Your task to perform on an android device: Go to Wikipedia Image 0: 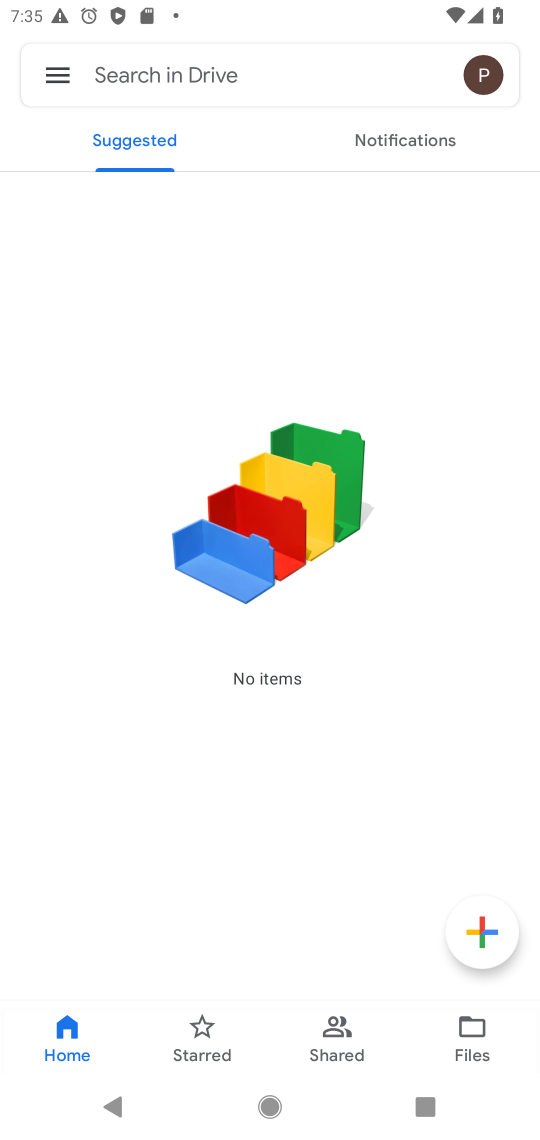
Step 0: press home button
Your task to perform on an android device: Go to Wikipedia Image 1: 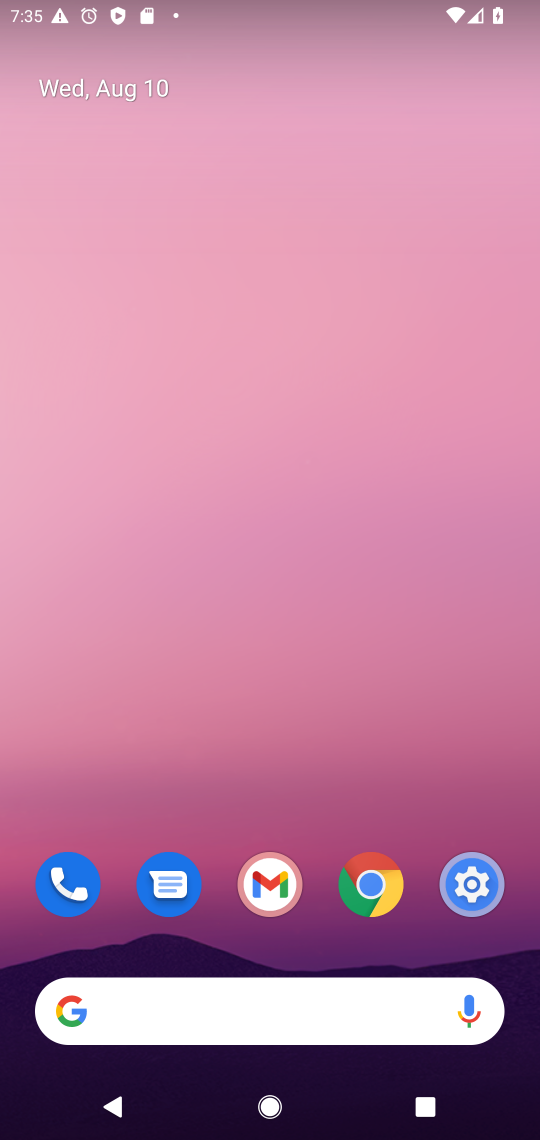
Step 1: click (117, 995)
Your task to perform on an android device: Go to Wikipedia Image 2: 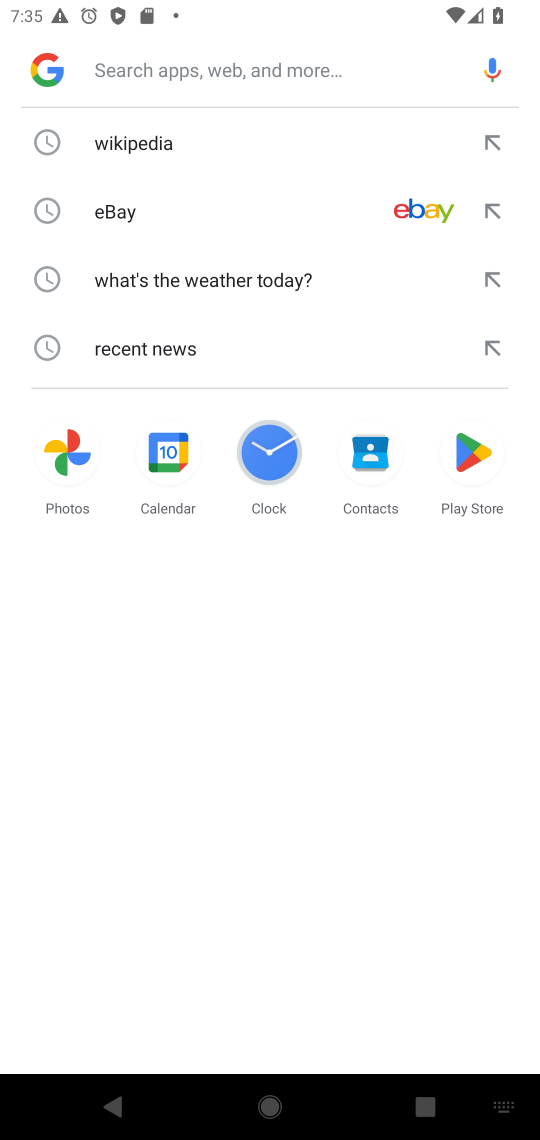
Step 2: type "Wikipedia"
Your task to perform on an android device: Go to Wikipedia Image 3: 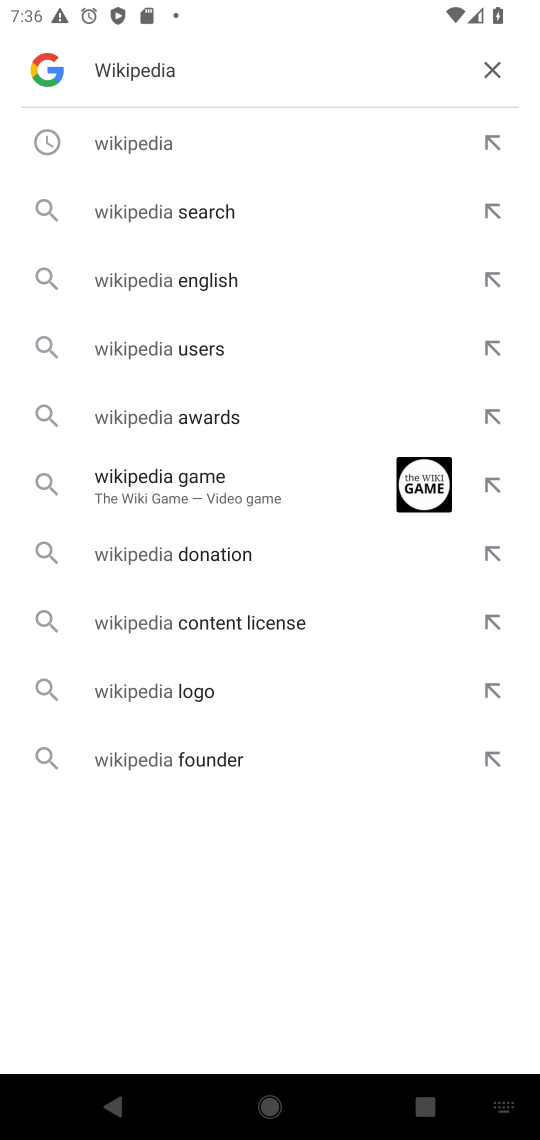
Step 3: click (205, 131)
Your task to perform on an android device: Go to Wikipedia Image 4: 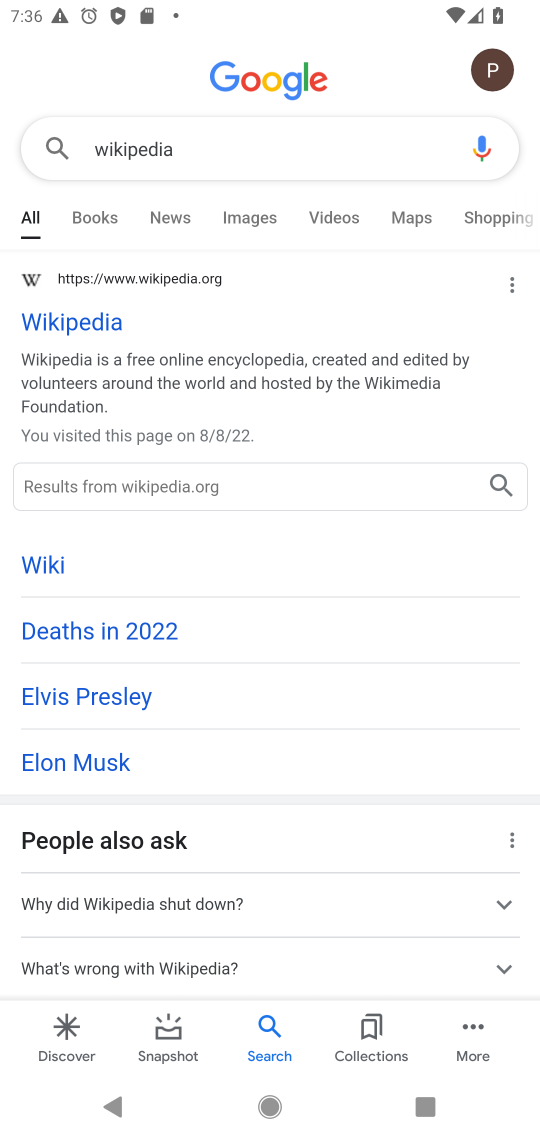
Step 4: task complete